Your task to perform on an android device: manage bookmarks in the chrome app Image 0: 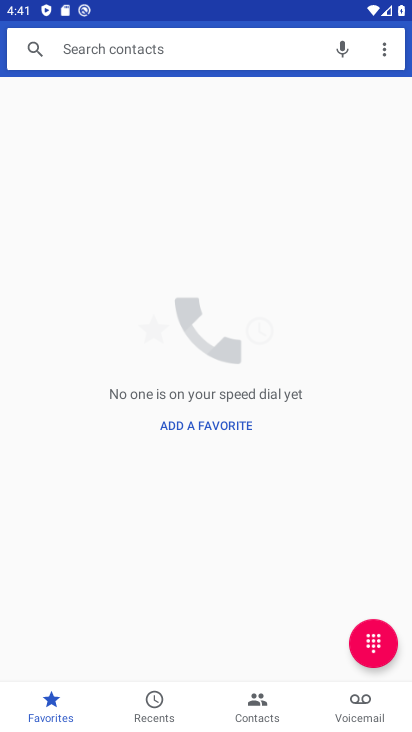
Step 0: press home button
Your task to perform on an android device: manage bookmarks in the chrome app Image 1: 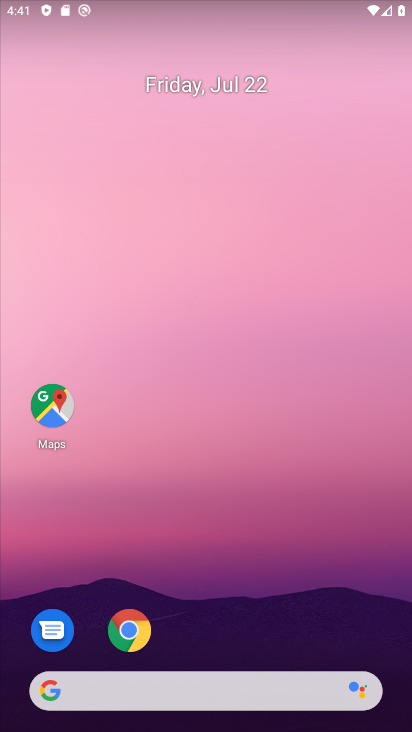
Step 1: click (132, 636)
Your task to perform on an android device: manage bookmarks in the chrome app Image 2: 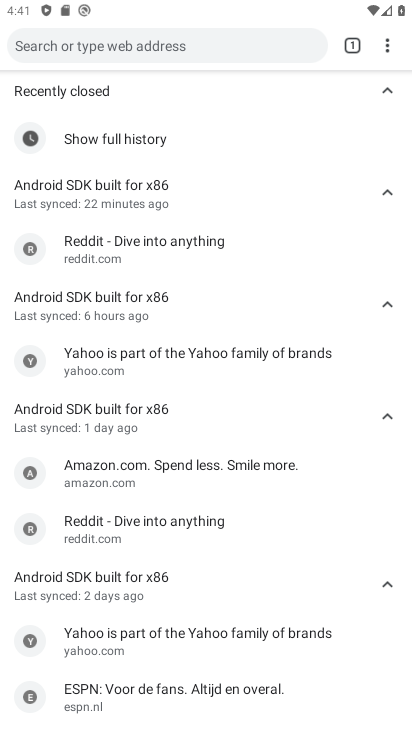
Step 2: click (388, 42)
Your task to perform on an android device: manage bookmarks in the chrome app Image 3: 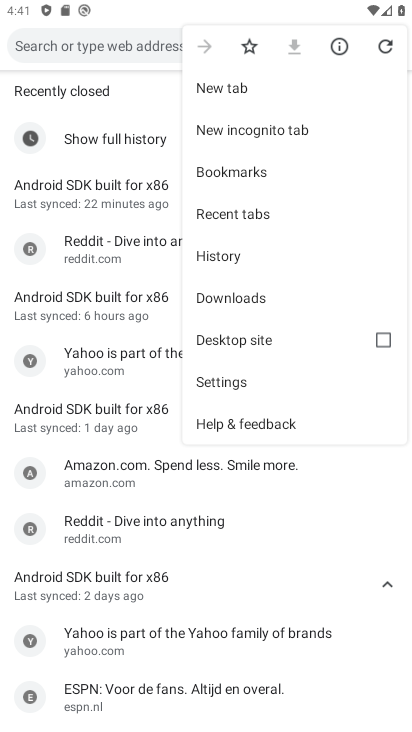
Step 3: click (237, 181)
Your task to perform on an android device: manage bookmarks in the chrome app Image 4: 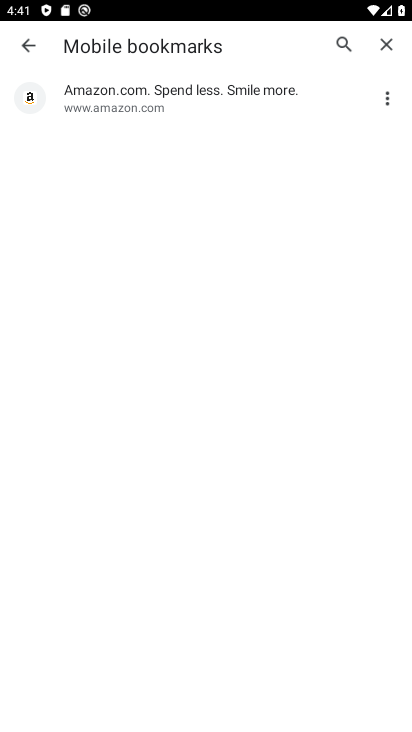
Step 4: click (389, 96)
Your task to perform on an android device: manage bookmarks in the chrome app Image 5: 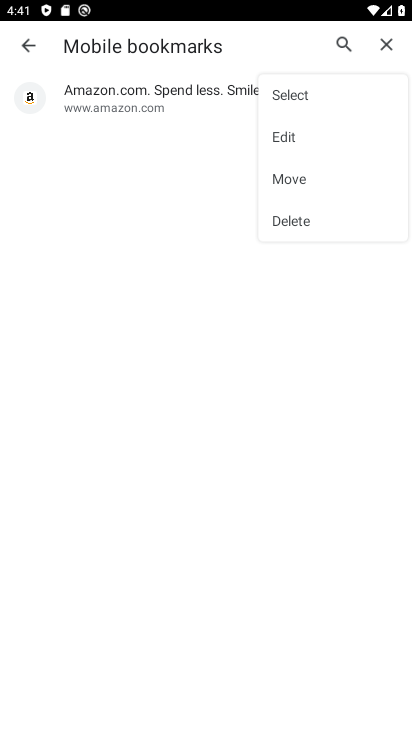
Step 5: click (296, 220)
Your task to perform on an android device: manage bookmarks in the chrome app Image 6: 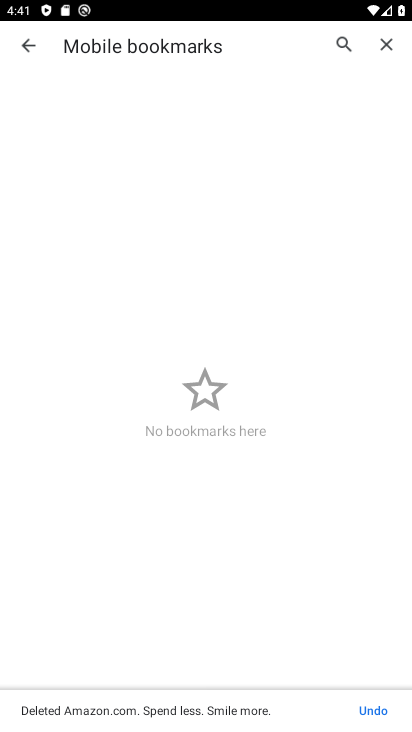
Step 6: task complete